Your task to perform on an android device: toggle sleep mode Image 0: 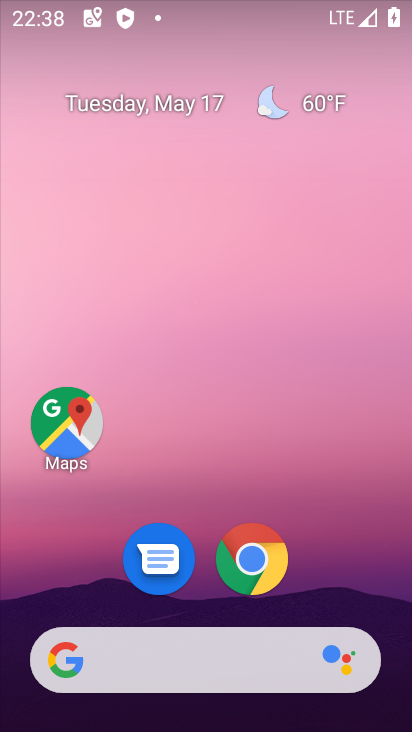
Step 0: drag from (335, 565) to (358, 141)
Your task to perform on an android device: toggle sleep mode Image 1: 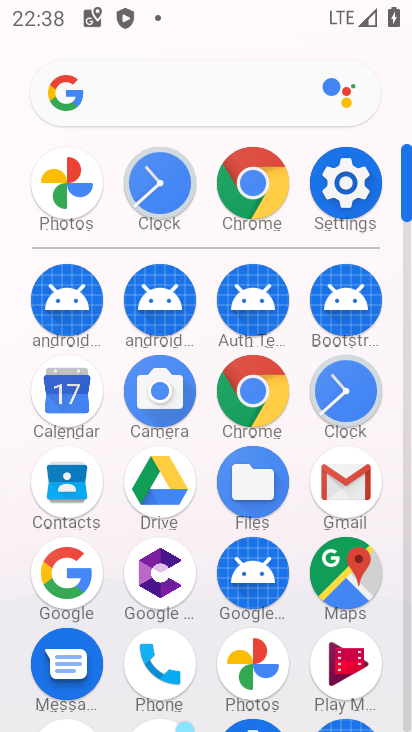
Step 1: click (341, 170)
Your task to perform on an android device: toggle sleep mode Image 2: 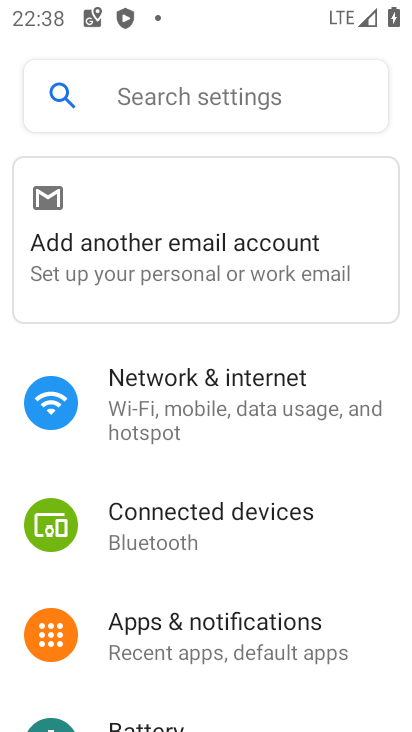
Step 2: drag from (237, 617) to (279, 145)
Your task to perform on an android device: toggle sleep mode Image 3: 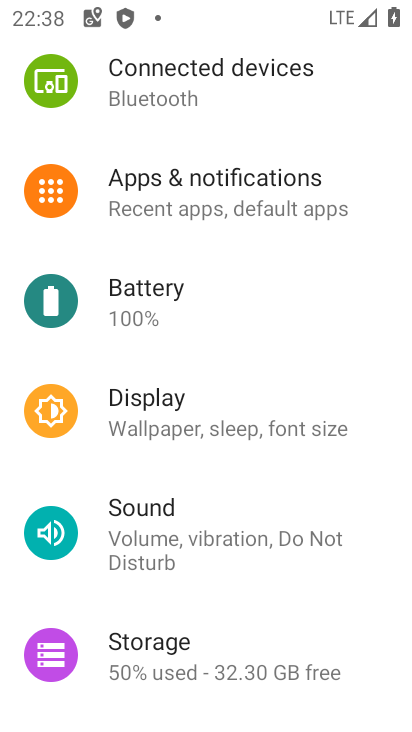
Step 3: click (201, 423)
Your task to perform on an android device: toggle sleep mode Image 4: 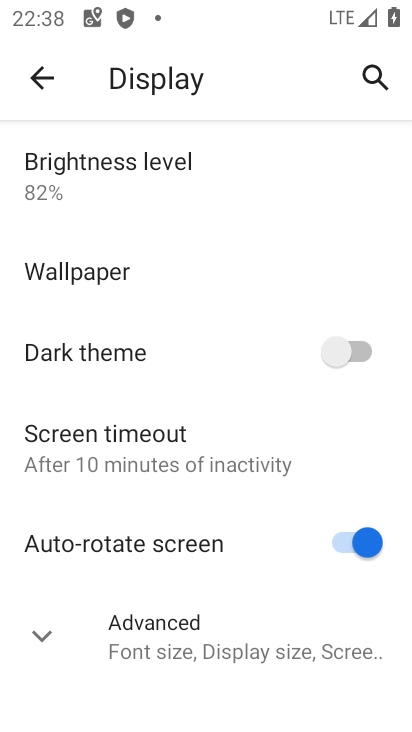
Step 4: click (138, 431)
Your task to perform on an android device: toggle sleep mode Image 5: 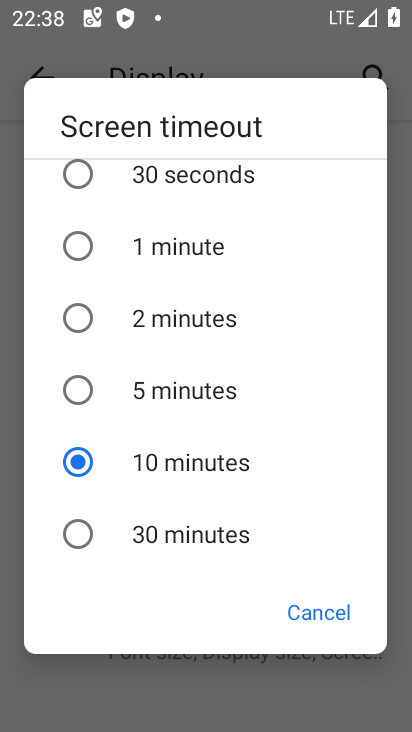
Step 5: click (156, 532)
Your task to perform on an android device: toggle sleep mode Image 6: 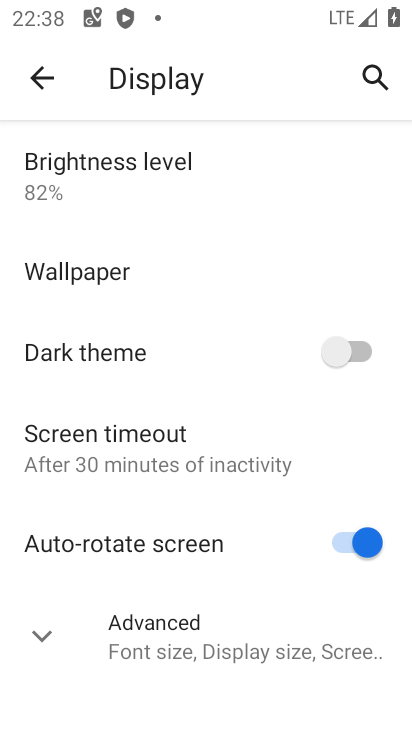
Step 6: task complete